Your task to perform on an android device: Open notification settings Image 0: 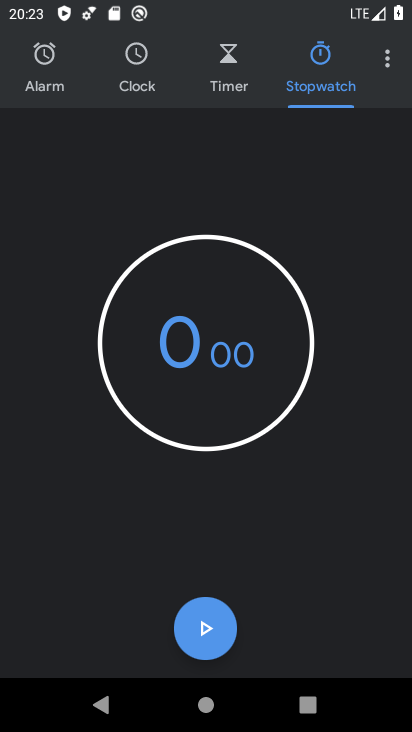
Step 0: press back button
Your task to perform on an android device: Open notification settings Image 1: 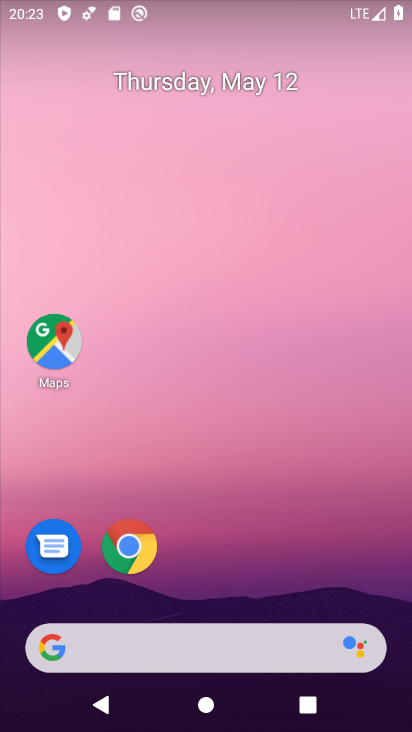
Step 1: drag from (227, 557) to (286, 66)
Your task to perform on an android device: Open notification settings Image 2: 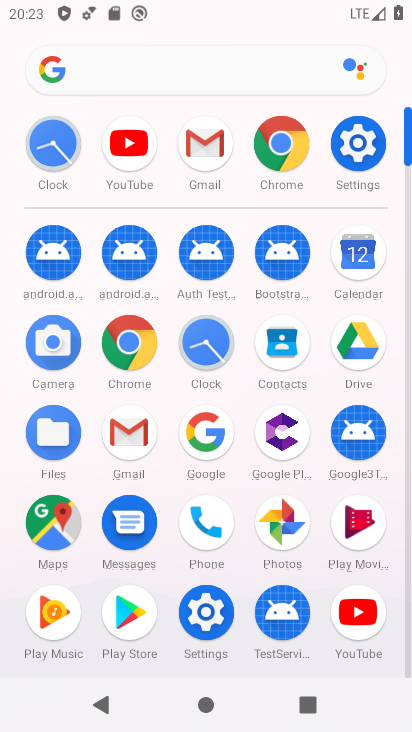
Step 2: click (348, 124)
Your task to perform on an android device: Open notification settings Image 3: 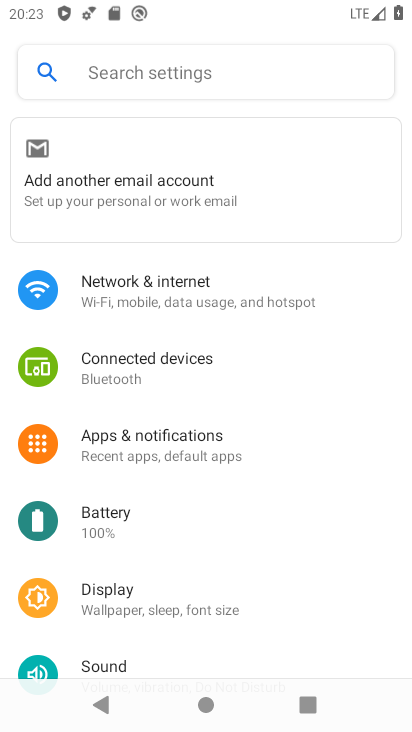
Step 3: click (192, 438)
Your task to perform on an android device: Open notification settings Image 4: 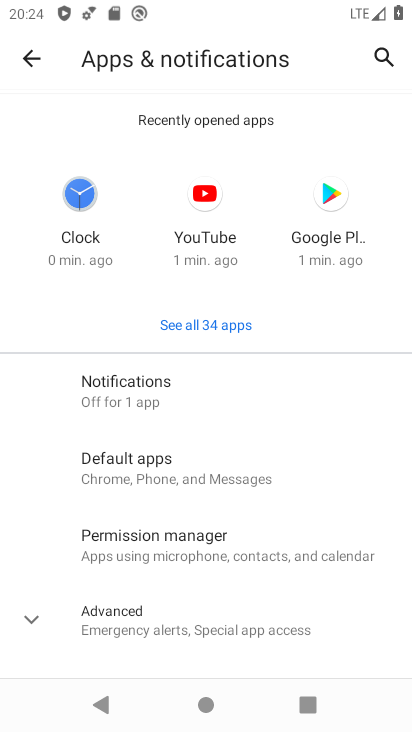
Step 4: click (135, 383)
Your task to perform on an android device: Open notification settings Image 5: 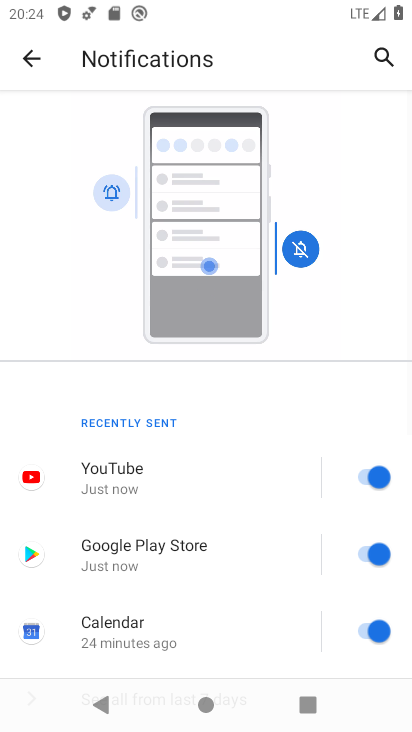
Step 5: task complete